Your task to perform on an android device: install app "Move to iOS" Image 0: 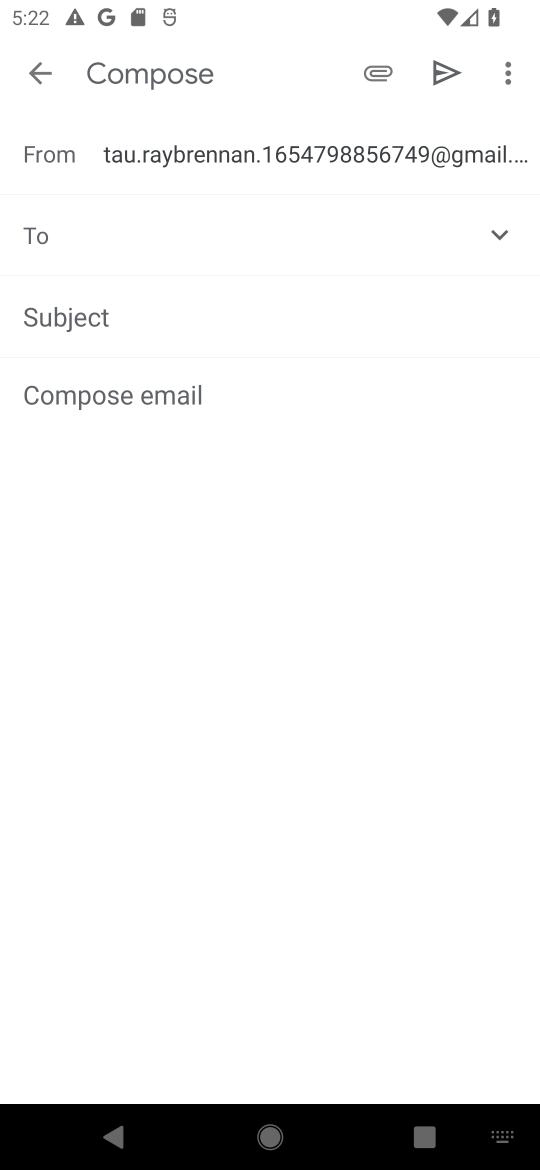
Step 0: press home button
Your task to perform on an android device: install app "Move to iOS" Image 1: 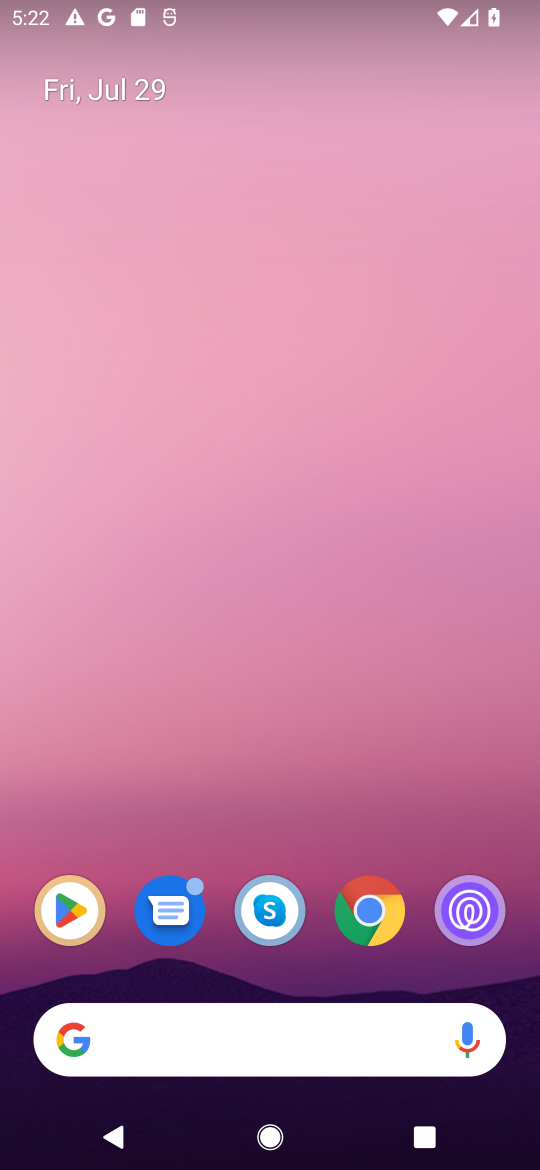
Step 1: drag from (284, 875) to (329, 210)
Your task to perform on an android device: install app "Move to iOS" Image 2: 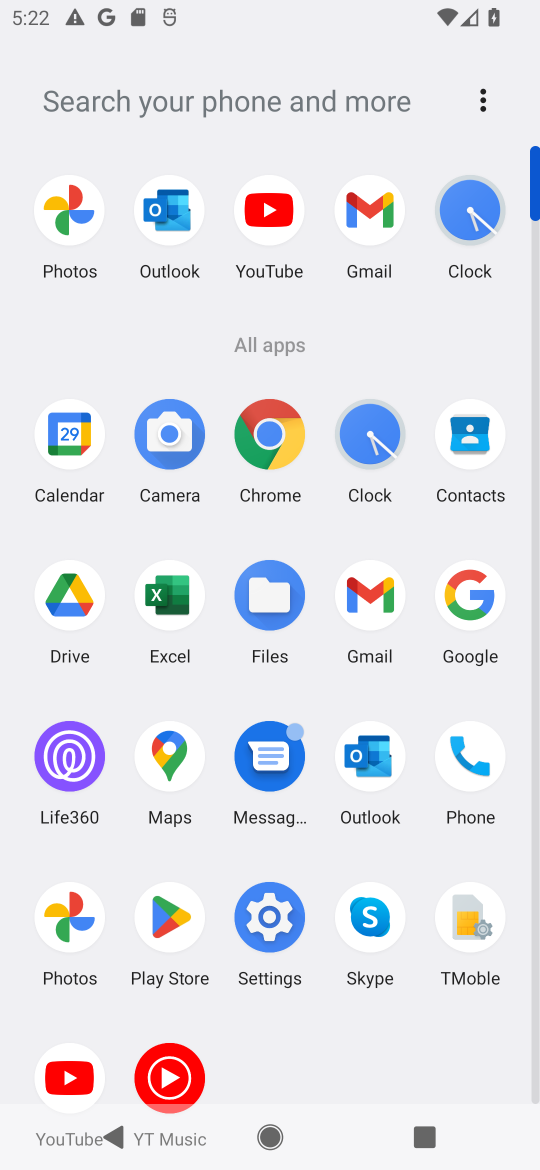
Step 2: click (177, 910)
Your task to perform on an android device: install app "Move to iOS" Image 3: 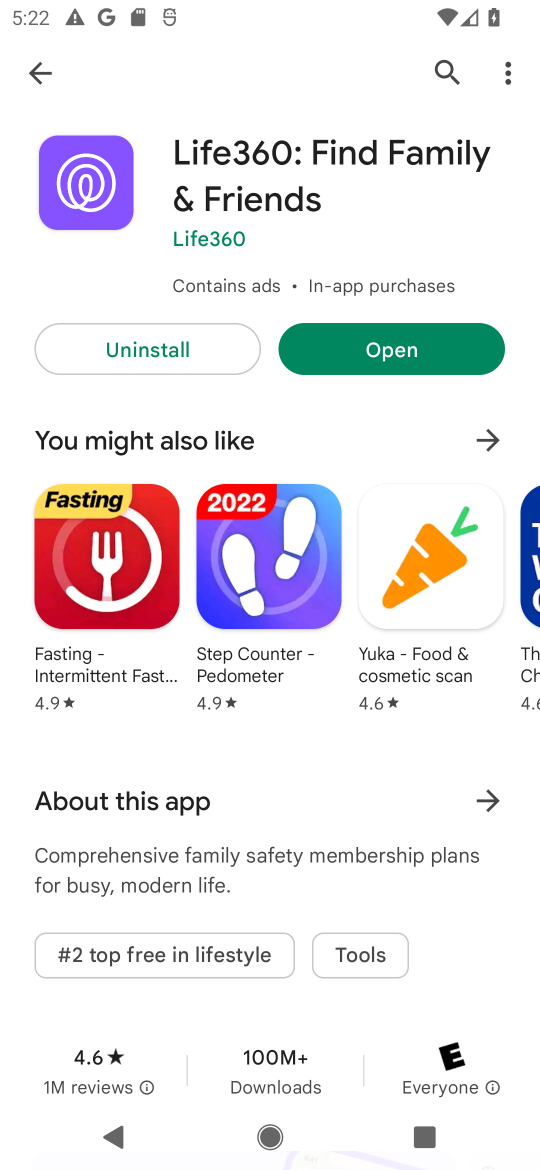
Step 3: click (43, 74)
Your task to perform on an android device: install app "Move to iOS" Image 4: 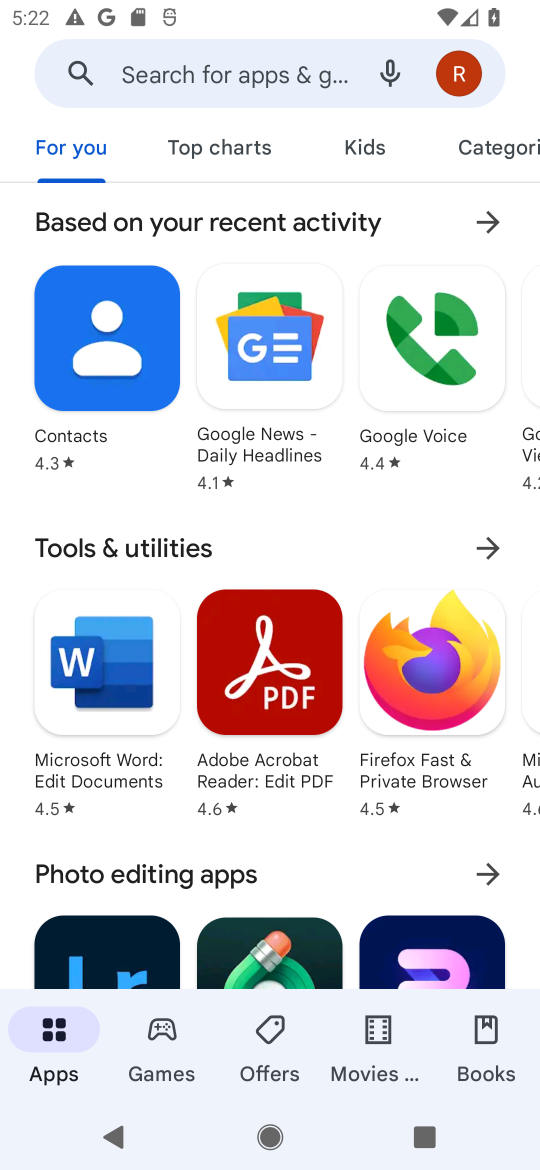
Step 4: click (169, 73)
Your task to perform on an android device: install app "Move to iOS" Image 5: 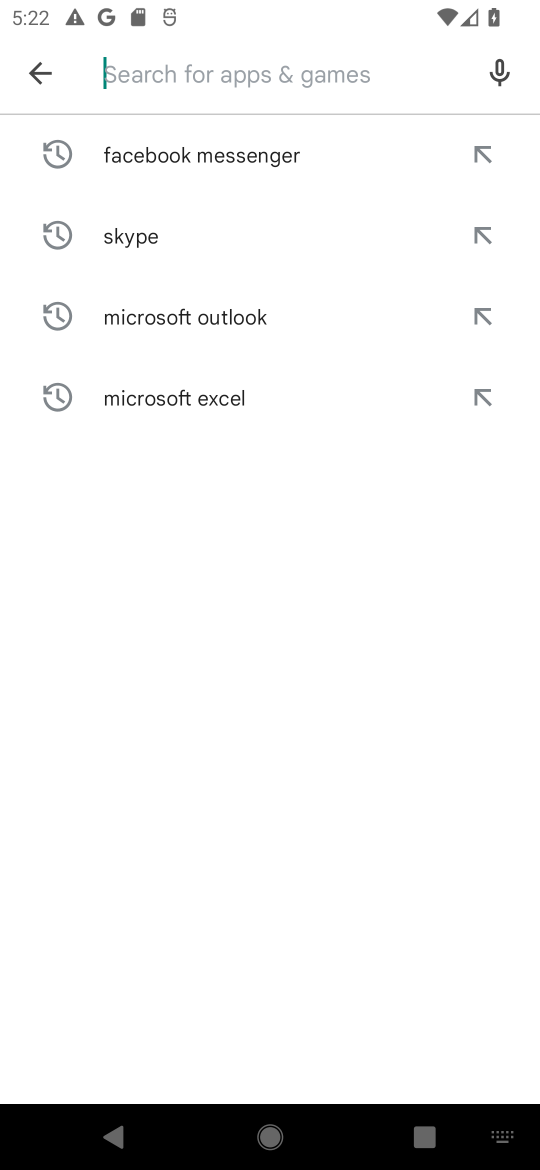
Step 5: type "Move to iOS"
Your task to perform on an android device: install app "Move to iOS" Image 6: 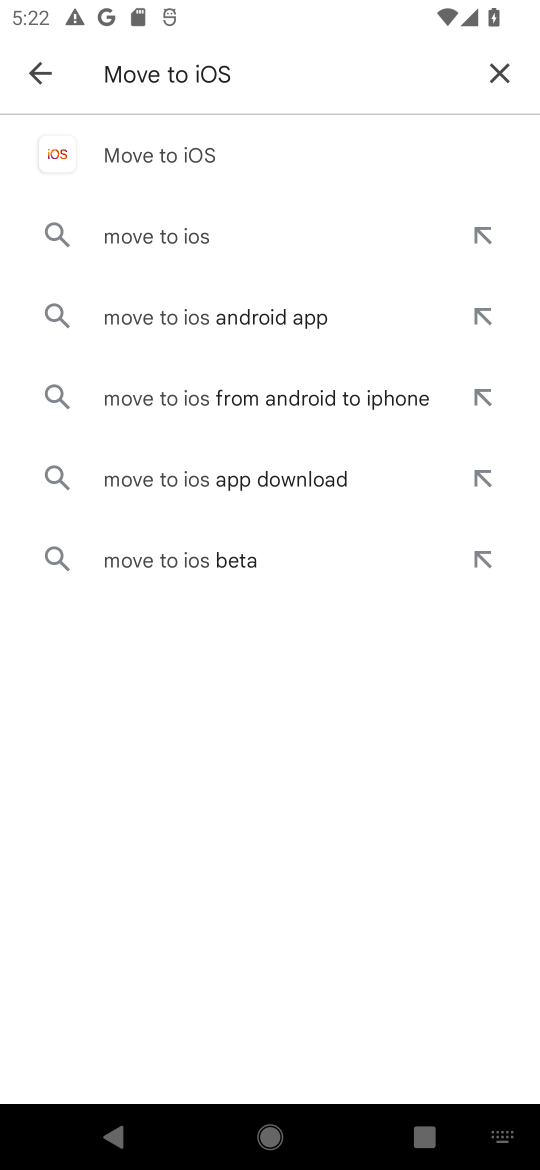
Step 6: click (184, 140)
Your task to perform on an android device: install app "Move to iOS" Image 7: 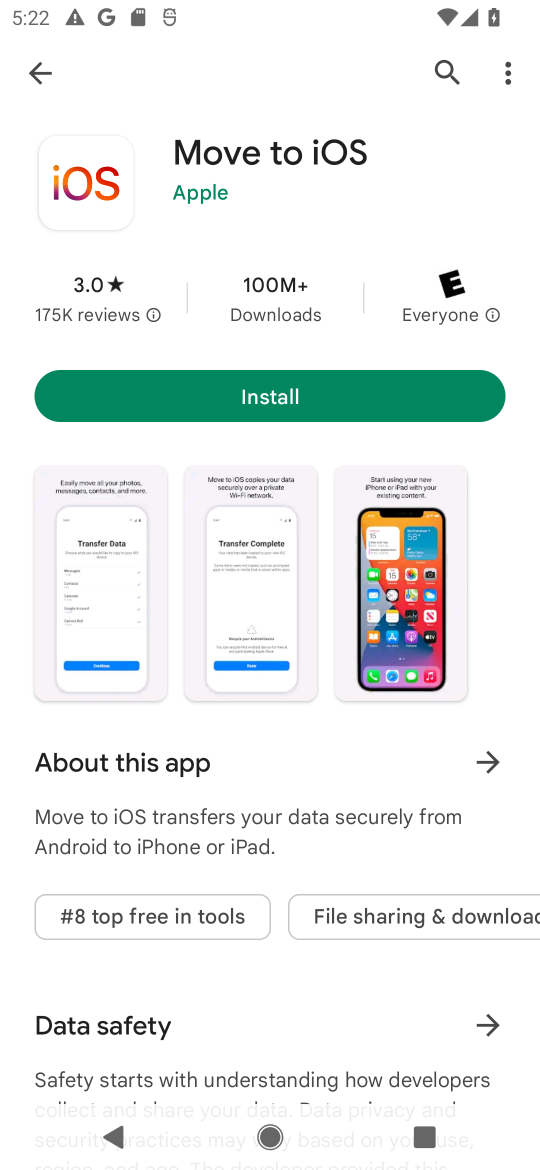
Step 7: click (298, 395)
Your task to perform on an android device: install app "Move to iOS" Image 8: 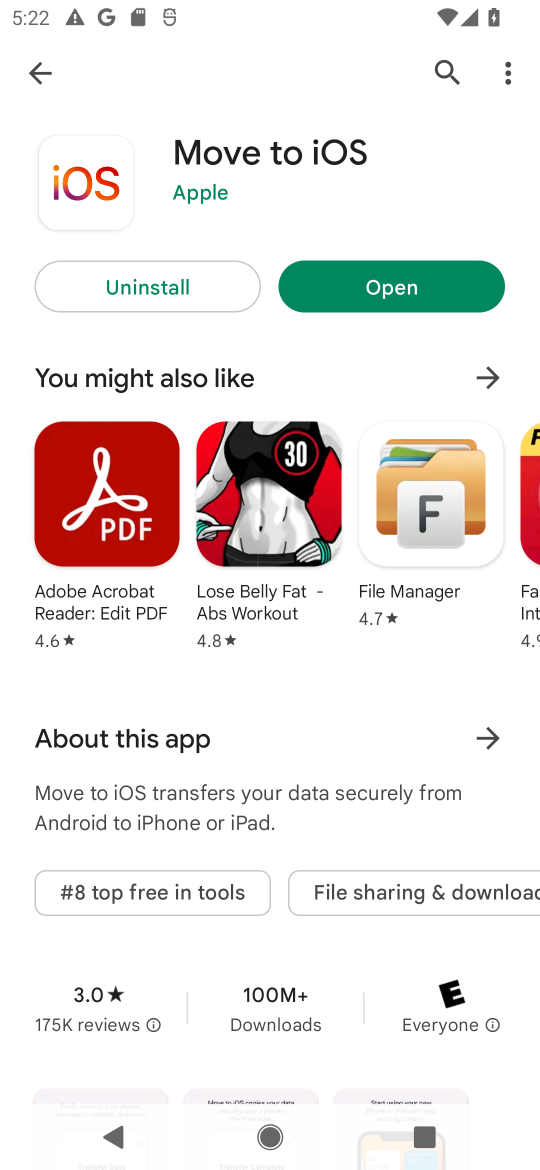
Step 8: click (345, 277)
Your task to perform on an android device: install app "Move to iOS" Image 9: 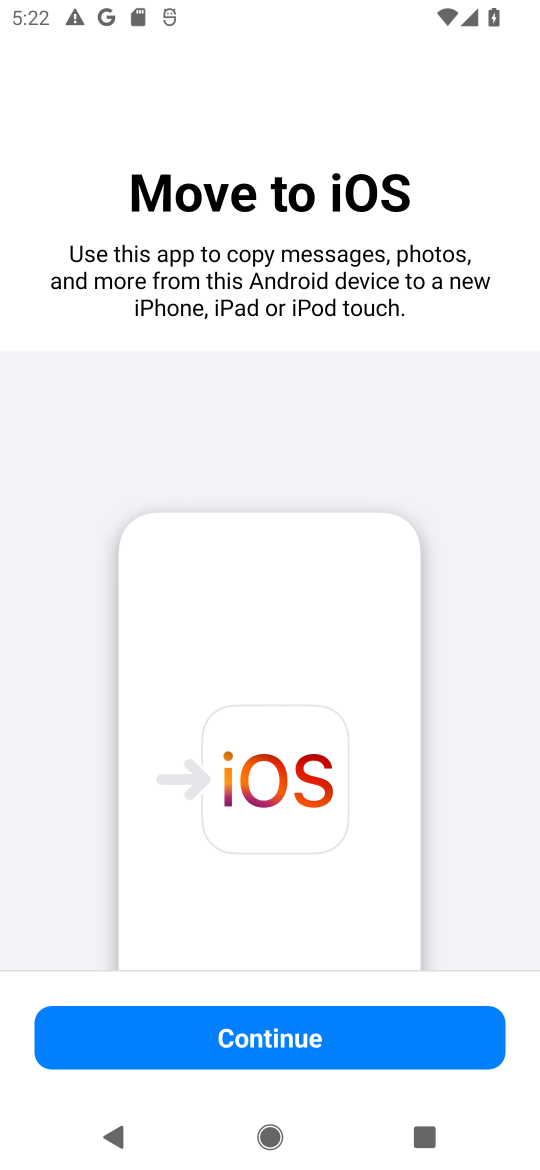
Step 9: task complete